Your task to perform on an android device: Open calendar and show me the second week of next month Image 0: 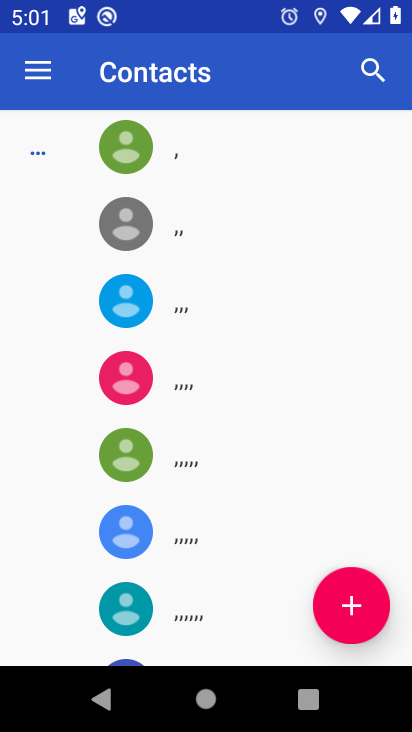
Step 0: press home button
Your task to perform on an android device: Open calendar and show me the second week of next month Image 1: 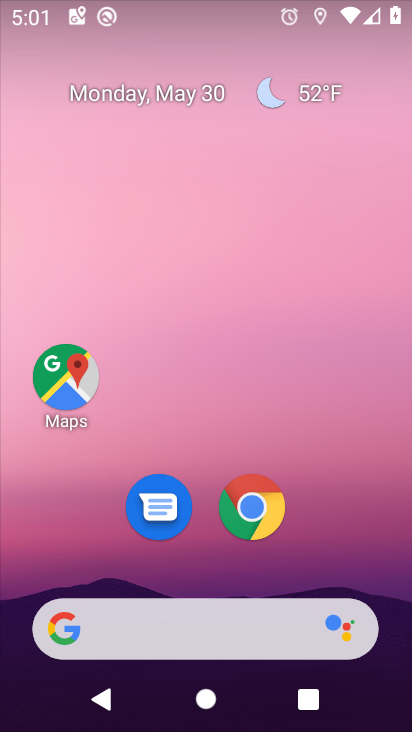
Step 1: drag from (331, 530) to (310, 85)
Your task to perform on an android device: Open calendar and show me the second week of next month Image 2: 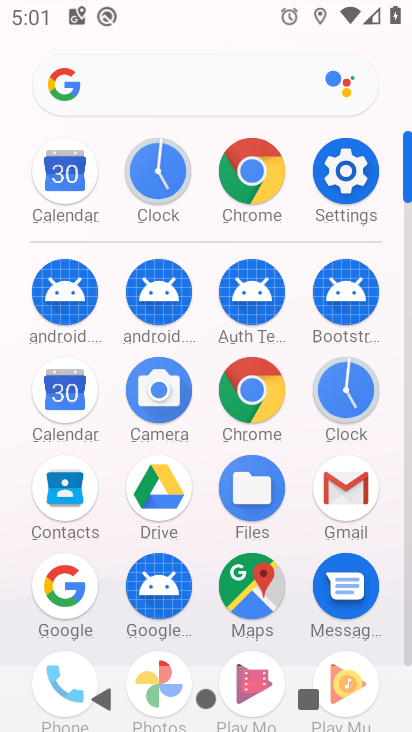
Step 2: click (346, 404)
Your task to perform on an android device: Open calendar and show me the second week of next month Image 3: 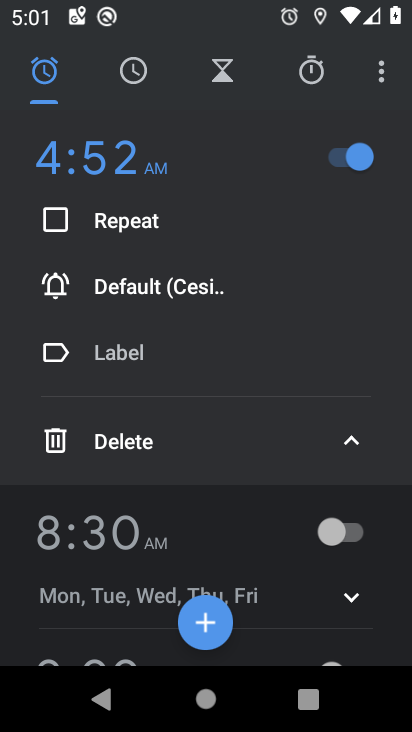
Step 3: press back button
Your task to perform on an android device: Open calendar and show me the second week of next month Image 4: 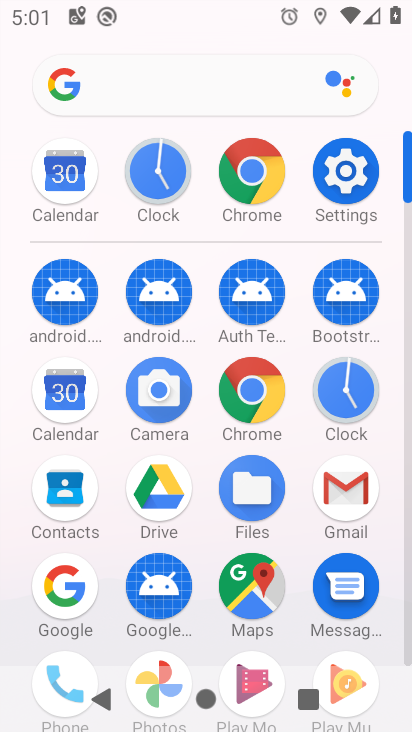
Step 4: click (92, 389)
Your task to perform on an android device: Open calendar and show me the second week of next month Image 5: 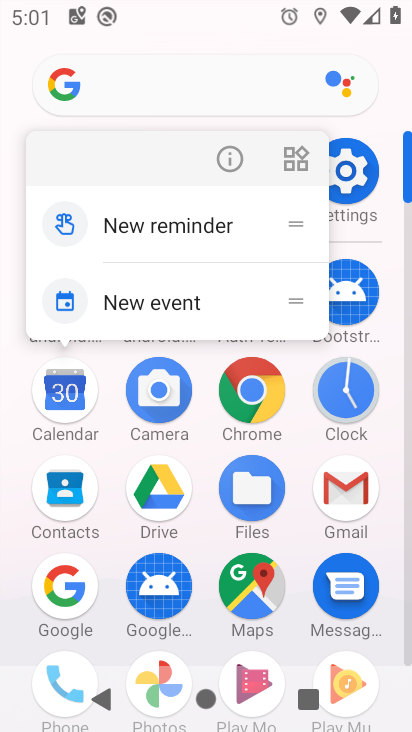
Step 5: click (91, 385)
Your task to perform on an android device: Open calendar and show me the second week of next month Image 6: 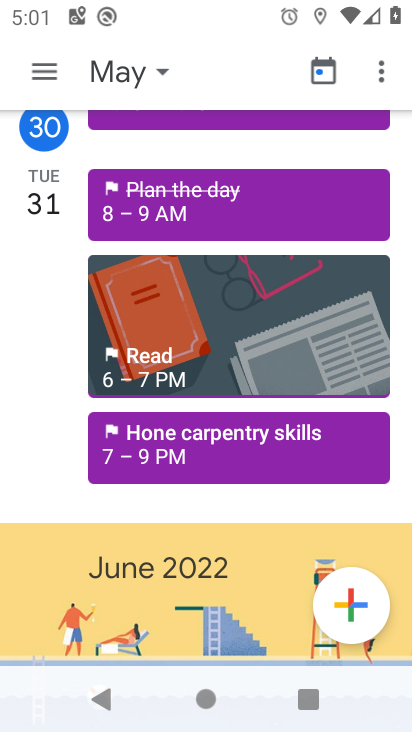
Step 6: click (161, 79)
Your task to perform on an android device: Open calendar and show me the second week of next month Image 7: 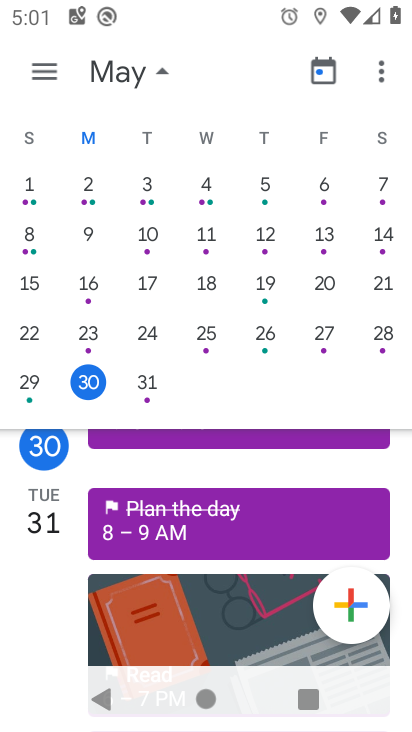
Step 7: drag from (365, 246) to (98, 310)
Your task to perform on an android device: Open calendar and show me the second week of next month Image 8: 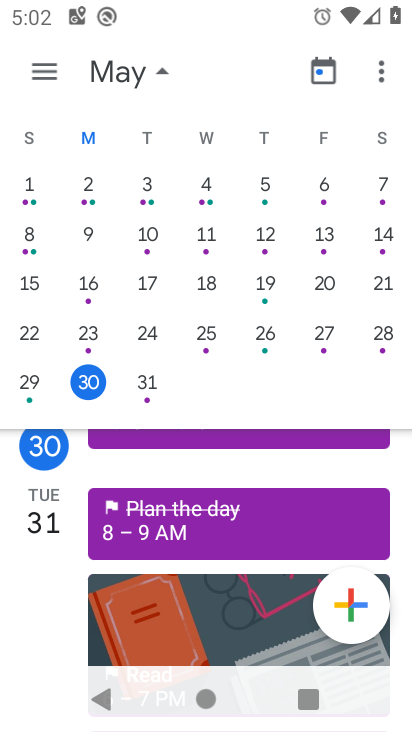
Step 8: drag from (352, 269) to (271, 278)
Your task to perform on an android device: Open calendar and show me the second week of next month Image 9: 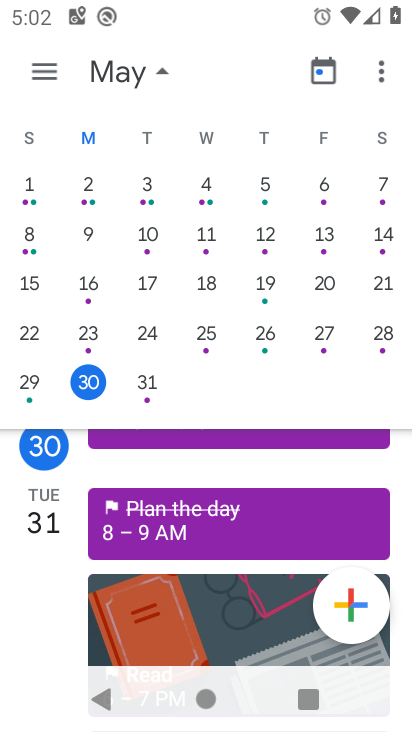
Step 9: drag from (408, 289) to (0, 313)
Your task to perform on an android device: Open calendar and show me the second week of next month Image 10: 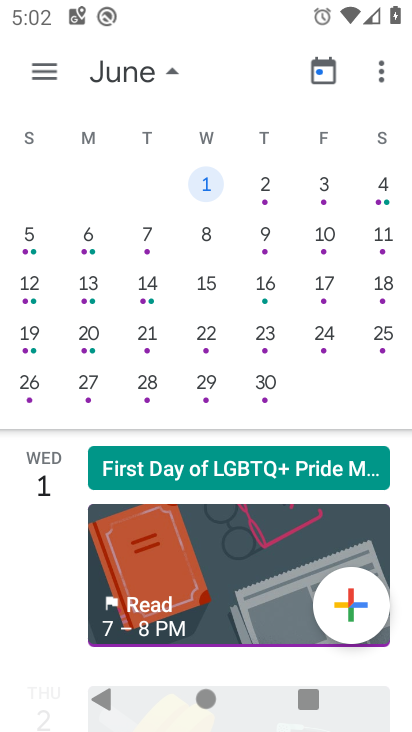
Step 10: click (199, 237)
Your task to perform on an android device: Open calendar and show me the second week of next month Image 11: 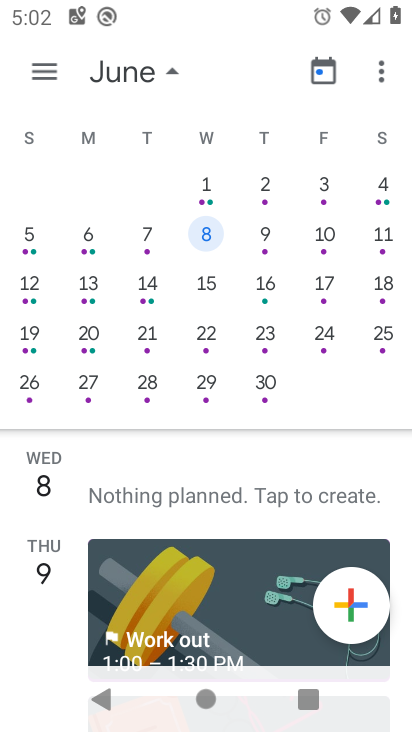
Step 11: task complete